Your task to perform on an android device: Open Google Maps Image 0: 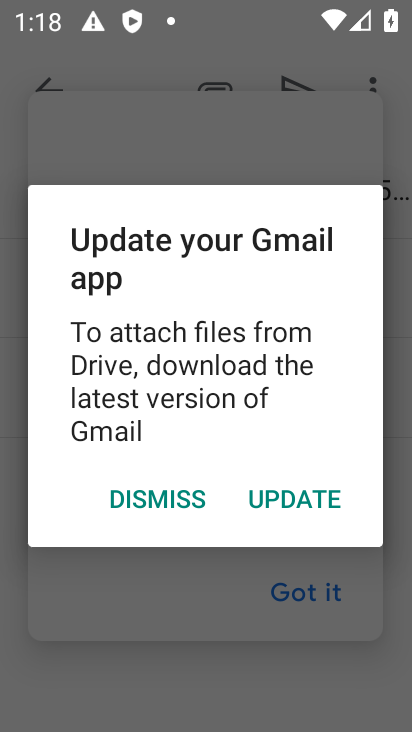
Step 0: click (327, 500)
Your task to perform on an android device: Open Google Maps Image 1: 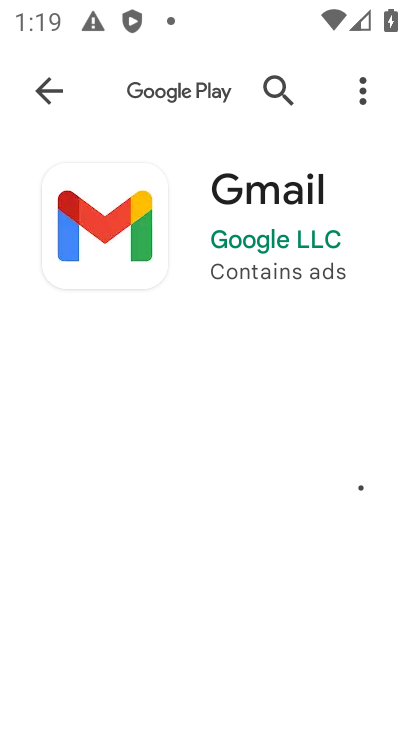
Step 1: press home button
Your task to perform on an android device: Open Google Maps Image 2: 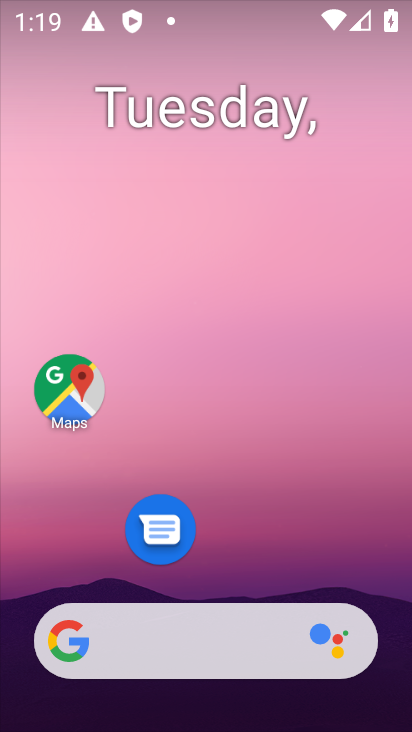
Step 2: click (83, 395)
Your task to perform on an android device: Open Google Maps Image 3: 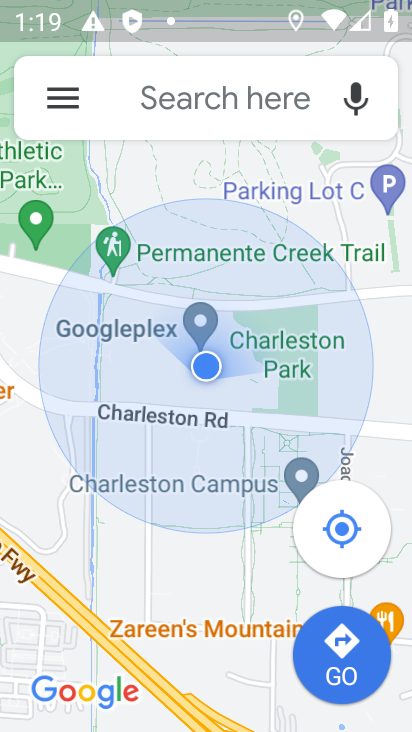
Step 3: task complete